Your task to perform on an android device: Go to internet settings Image 0: 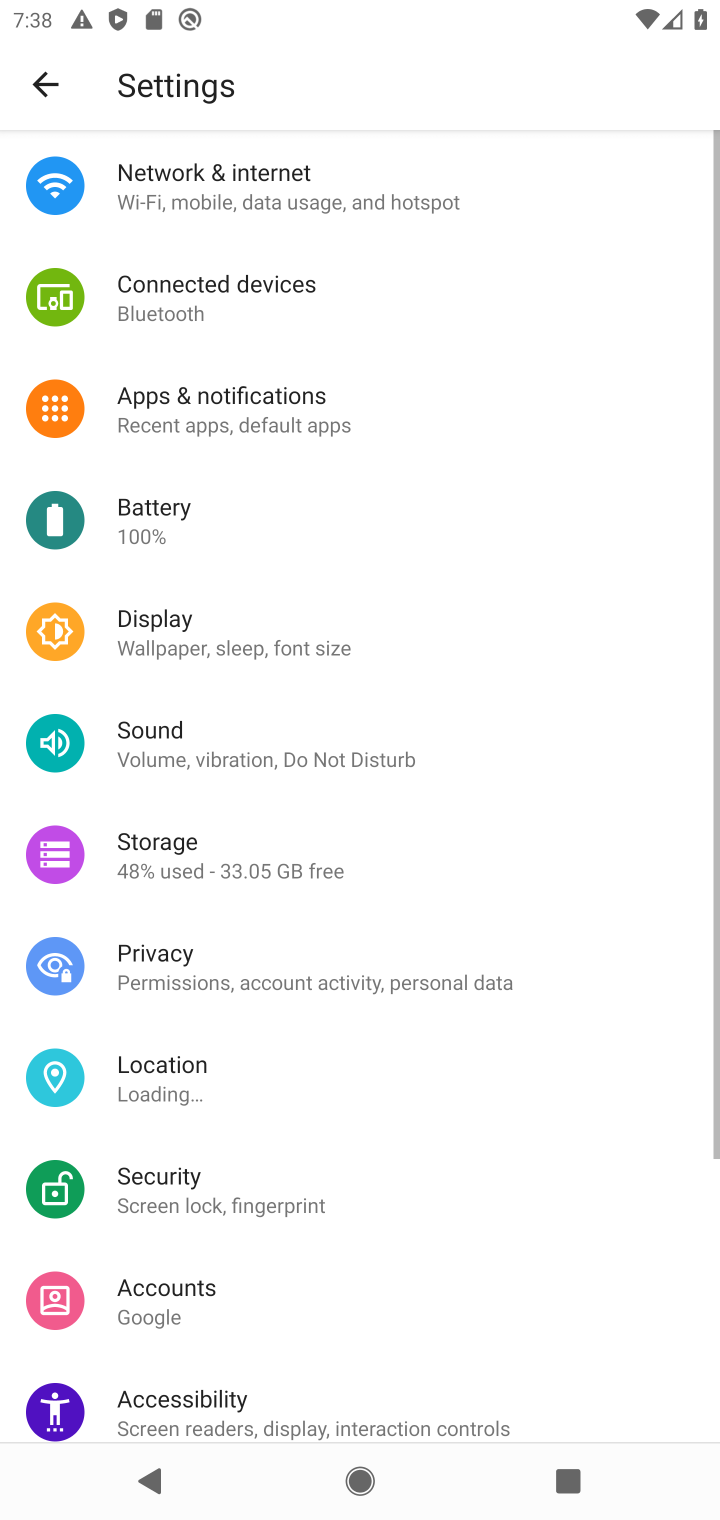
Step 0: press home button
Your task to perform on an android device: Go to internet settings Image 1: 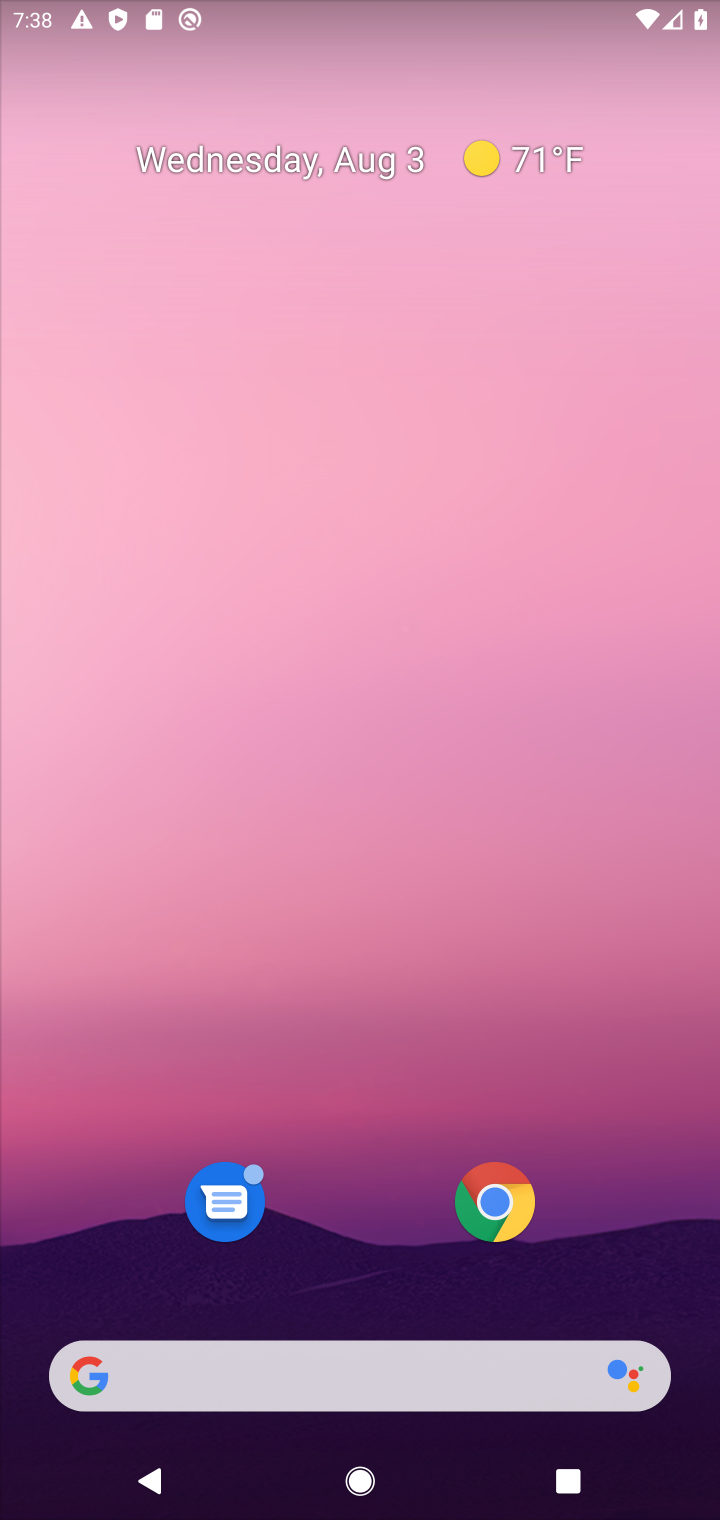
Step 1: drag from (280, 1372) to (303, 114)
Your task to perform on an android device: Go to internet settings Image 2: 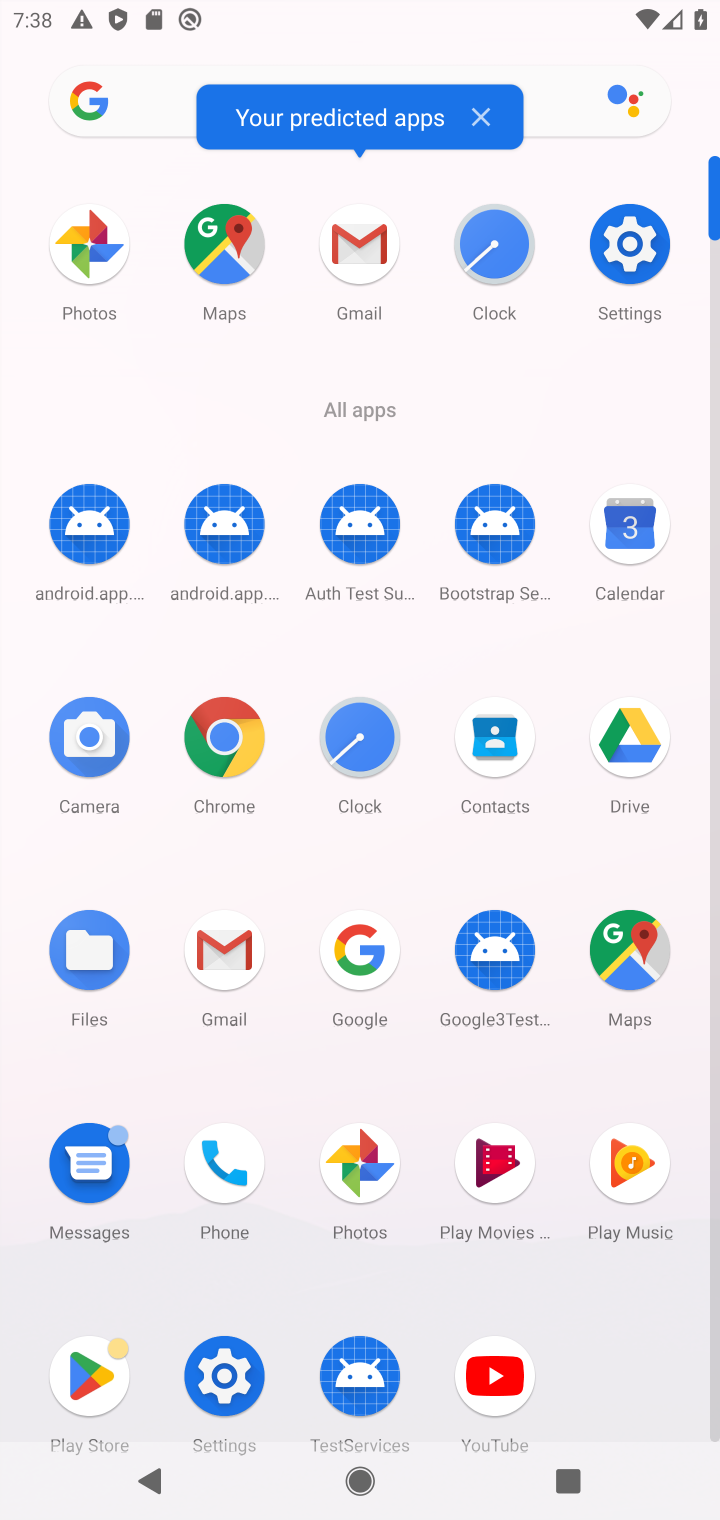
Step 2: click (625, 242)
Your task to perform on an android device: Go to internet settings Image 3: 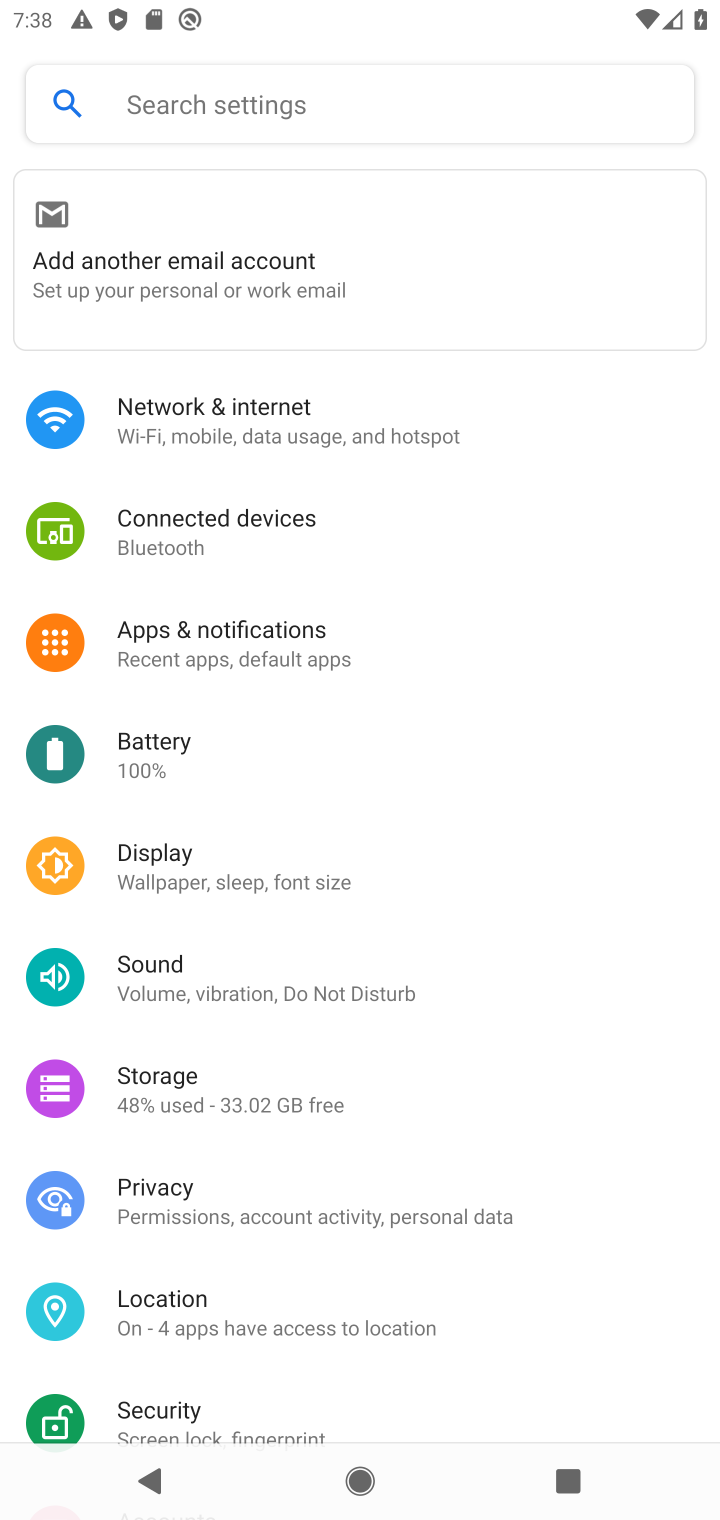
Step 3: click (212, 428)
Your task to perform on an android device: Go to internet settings Image 4: 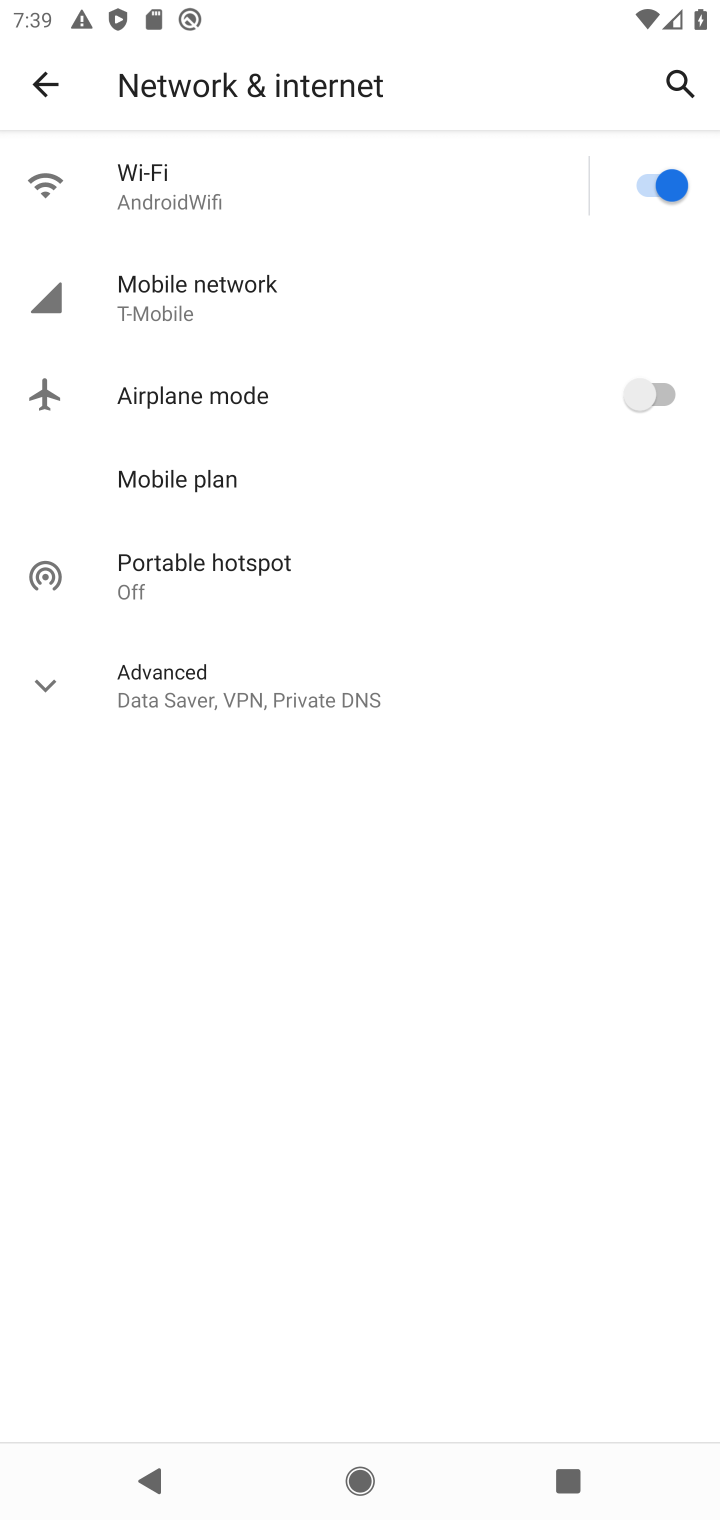
Step 4: task complete